Your task to perform on an android device: change the clock style Image 0: 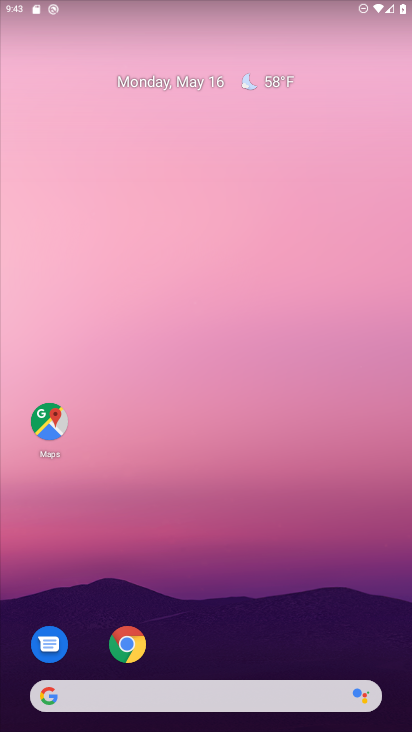
Step 0: drag from (197, 690) to (234, 265)
Your task to perform on an android device: change the clock style Image 1: 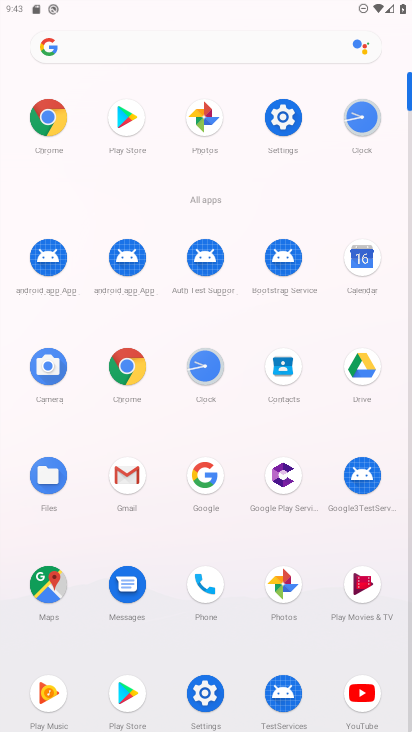
Step 1: click (211, 375)
Your task to perform on an android device: change the clock style Image 2: 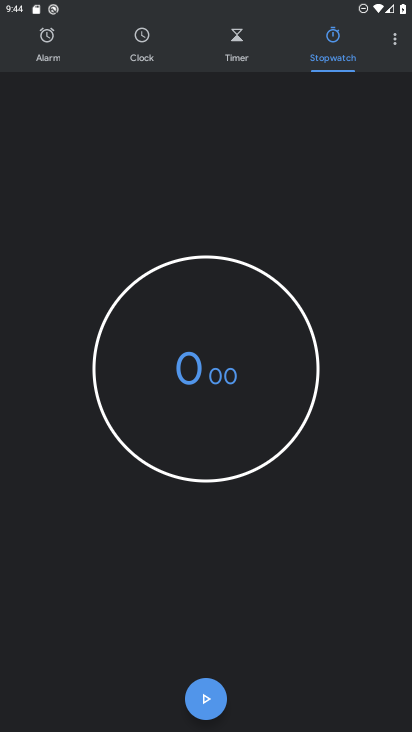
Step 2: click (392, 43)
Your task to perform on an android device: change the clock style Image 3: 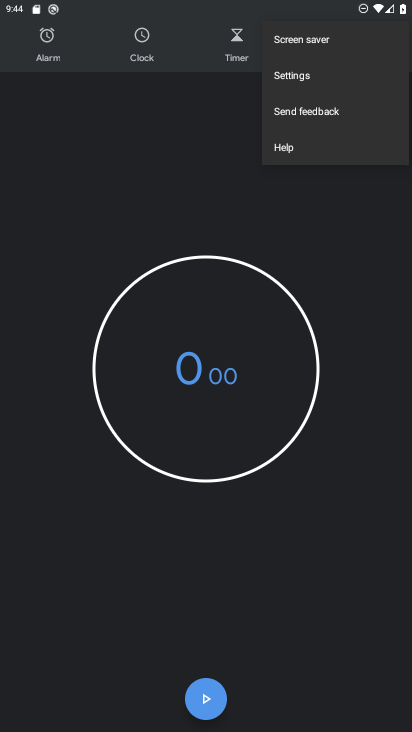
Step 3: click (313, 85)
Your task to perform on an android device: change the clock style Image 4: 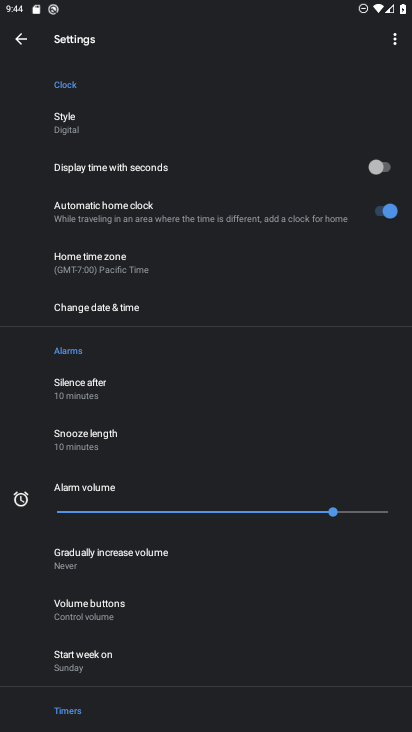
Step 4: click (161, 136)
Your task to perform on an android device: change the clock style Image 5: 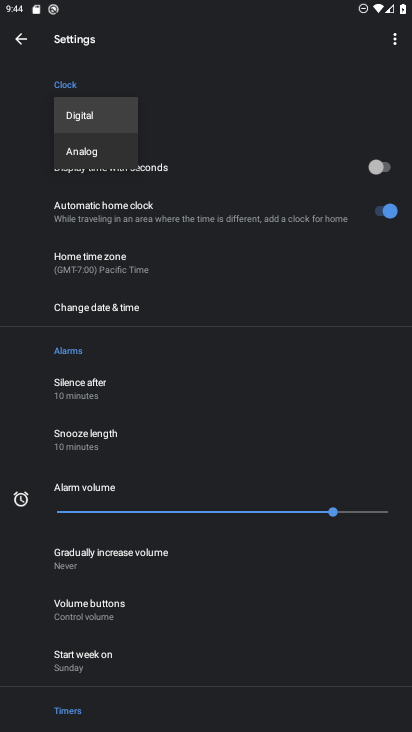
Step 5: click (117, 152)
Your task to perform on an android device: change the clock style Image 6: 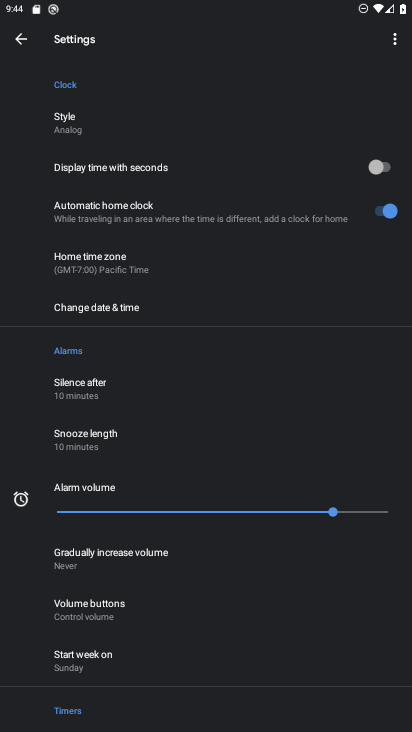
Step 6: task complete